Your task to perform on an android device: visit the assistant section in the google photos Image 0: 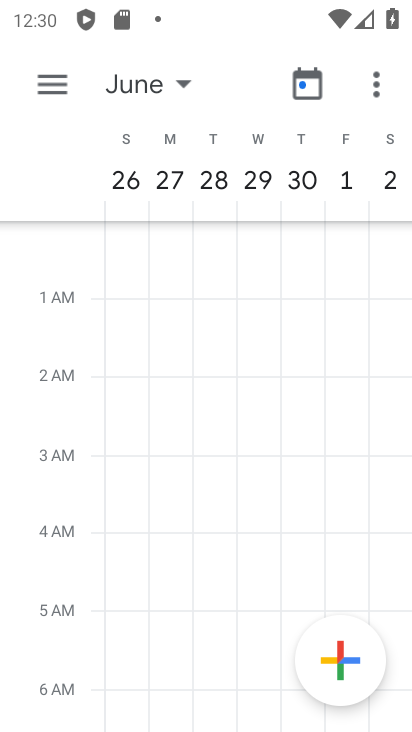
Step 0: press home button
Your task to perform on an android device: visit the assistant section in the google photos Image 1: 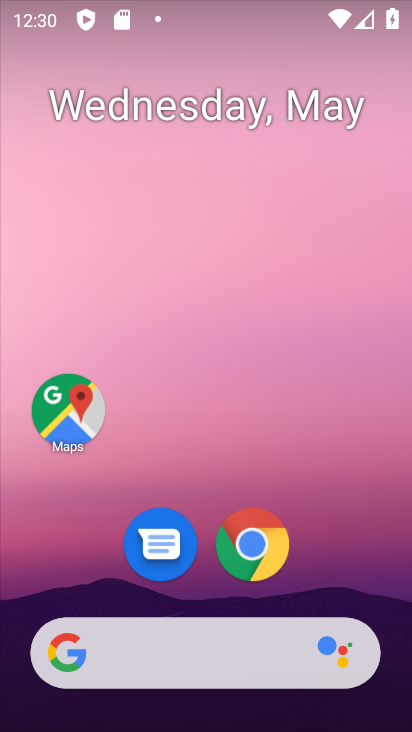
Step 1: drag from (335, 522) to (268, 51)
Your task to perform on an android device: visit the assistant section in the google photos Image 2: 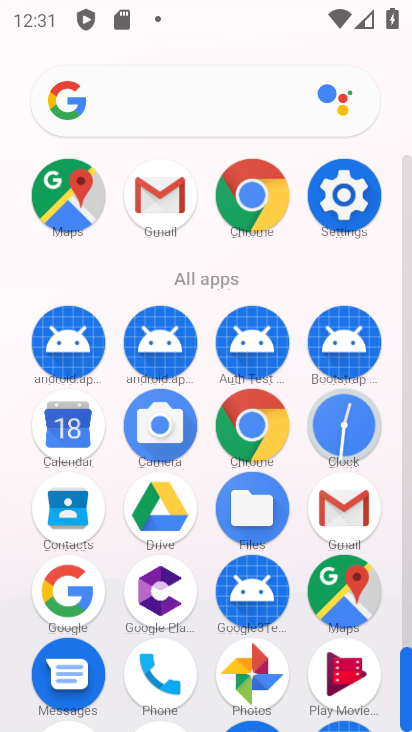
Step 2: click (249, 682)
Your task to perform on an android device: visit the assistant section in the google photos Image 3: 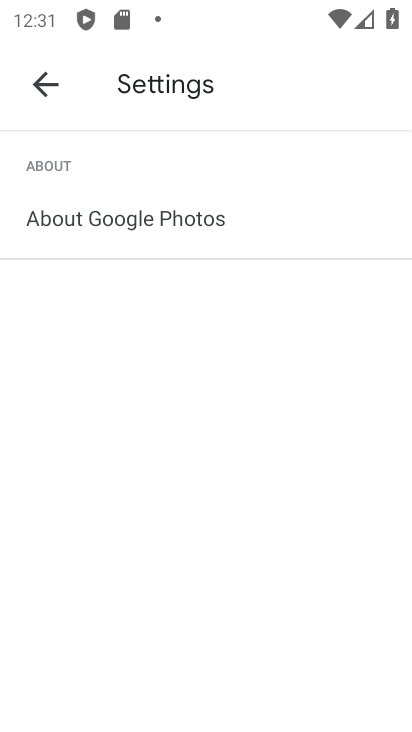
Step 3: click (57, 87)
Your task to perform on an android device: visit the assistant section in the google photos Image 4: 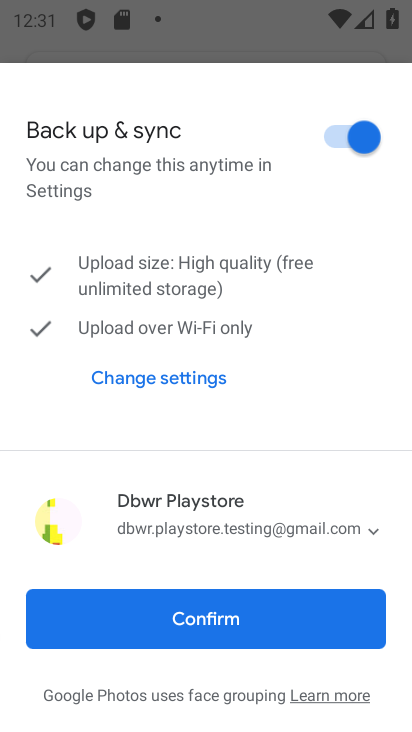
Step 4: click (278, 642)
Your task to perform on an android device: visit the assistant section in the google photos Image 5: 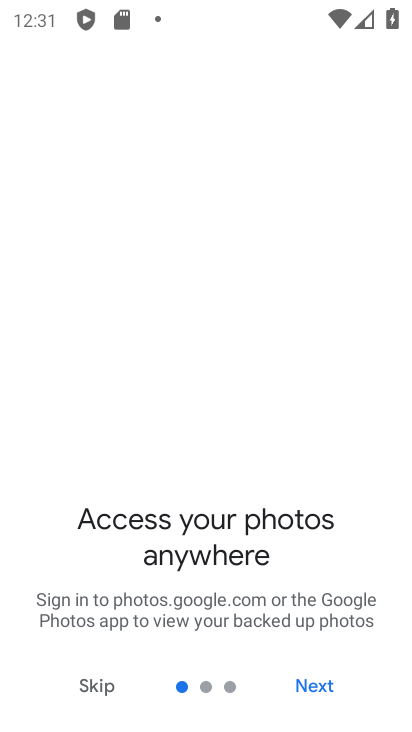
Step 5: click (311, 675)
Your task to perform on an android device: visit the assistant section in the google photos Image 6: 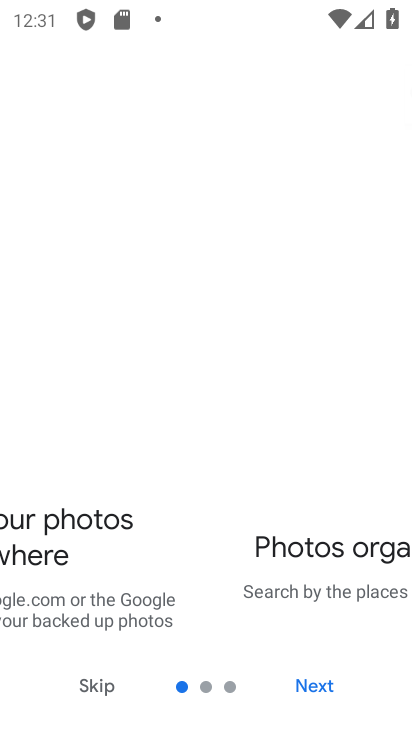
Step 6: click (311, 675)
Your task to perform on an android device: visit the assistant section in the google photos Image 7: 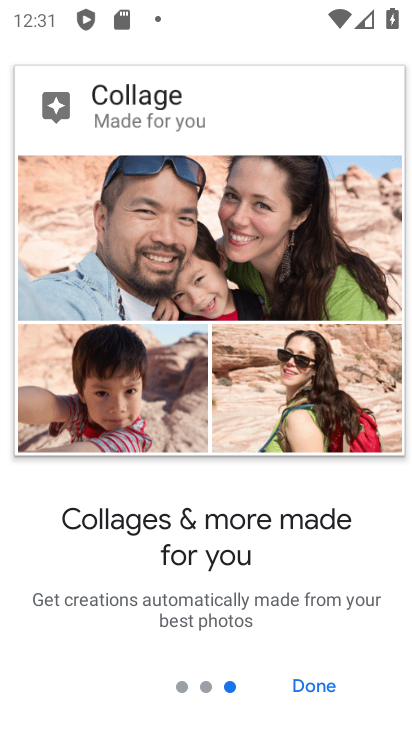
Step 7: click (301, 687)
Your task to perform on an android device: visit the assistant section in the google photos Image 8: 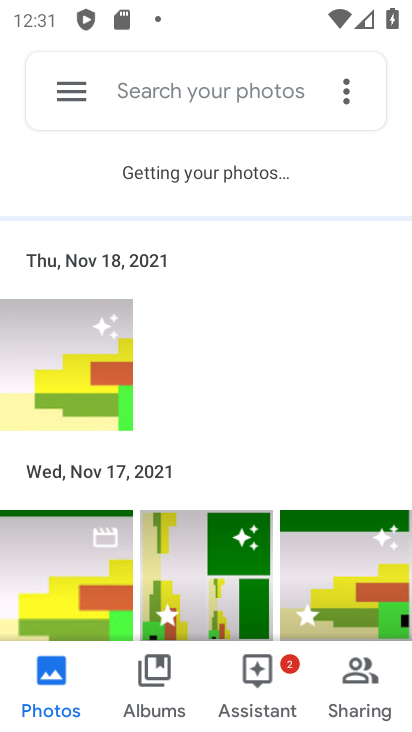
Step 8: click (274, 688)
Your task to perform on an android device: visit the assistant section in the google photos Image 9: 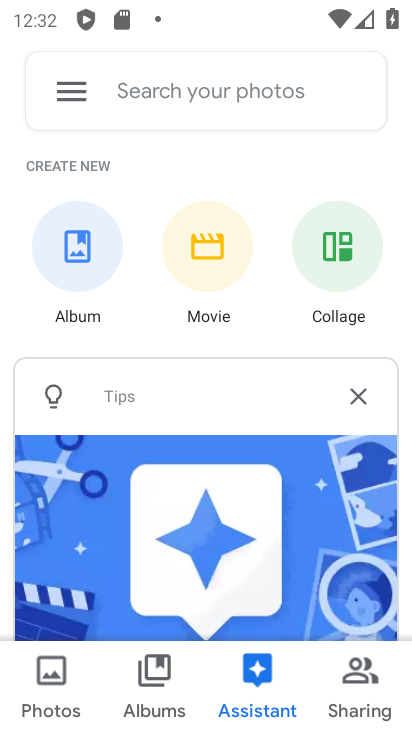
Step 9: task complete